Your task to perform on an android device: open sync settings in chrome Image 0: 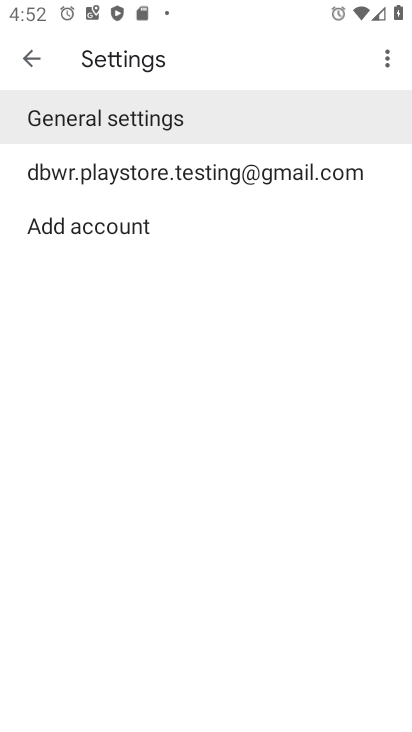
Step 0: press home button
Your task to perform on an android device: open sync settings in chrome Image 1: 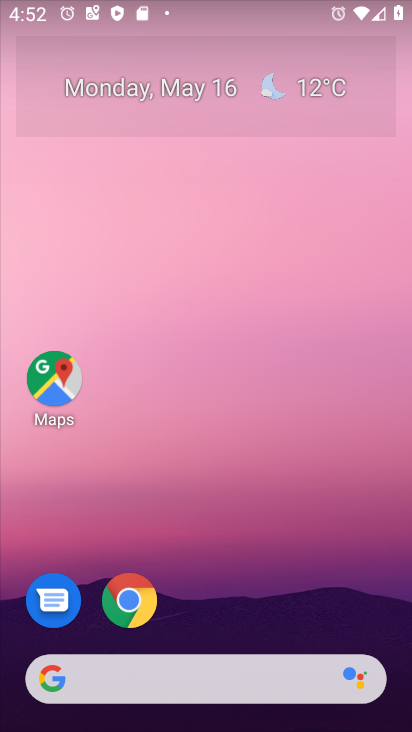
Step 1: click (129, 608)
Your task to perform on an android device: open sync settings in chrome Image 2: 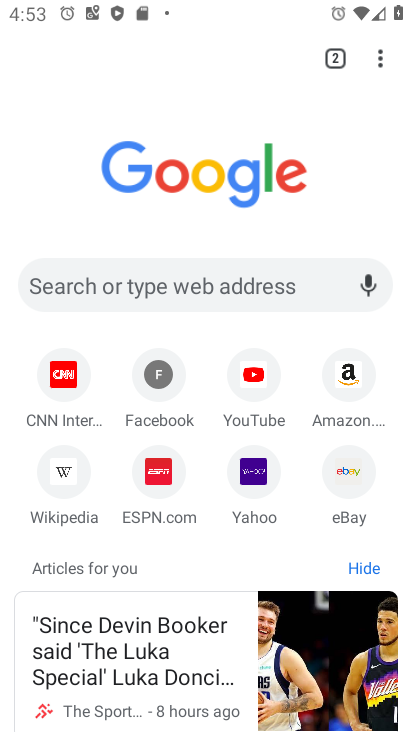
Step 2: click (384, 60)
Your task to perform on an android device: open sync settings in chrome Image 3: 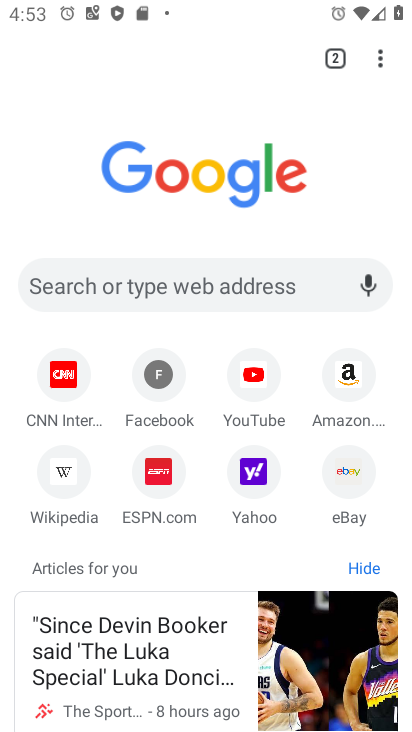
Step 3: click (382, 55)
Your task to perform on an android device: open sync settings in chrome Image 4: 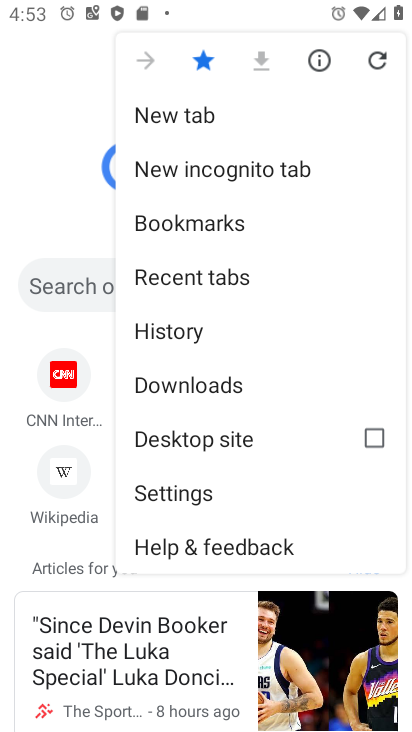
Step 4: click (188, 493)
Your task to perform on an android device: open sync settings in chrome Image 5: 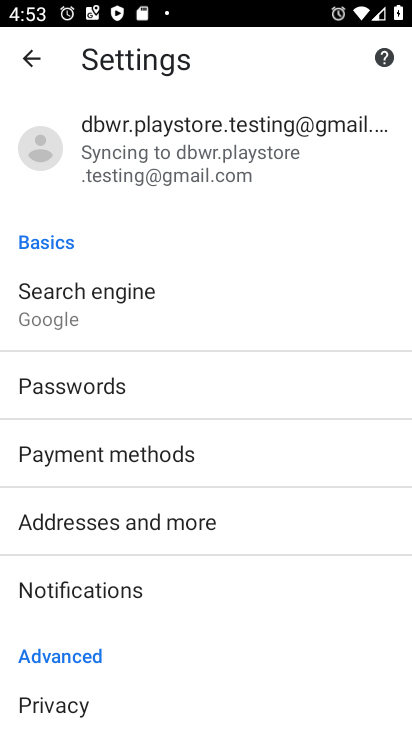
Step 5: click (128, 141)
Your task to perform on an android device: open sync settings in chrome Image 6: 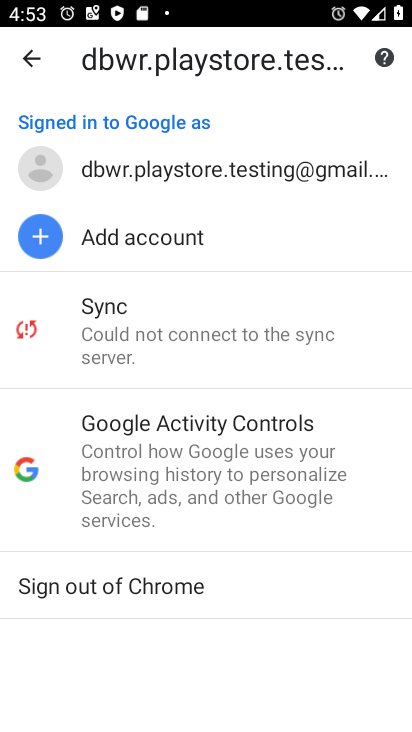
Step 6: click (129, 314)
Your task to perform on an android device: open sync settings in chrome Image 7: 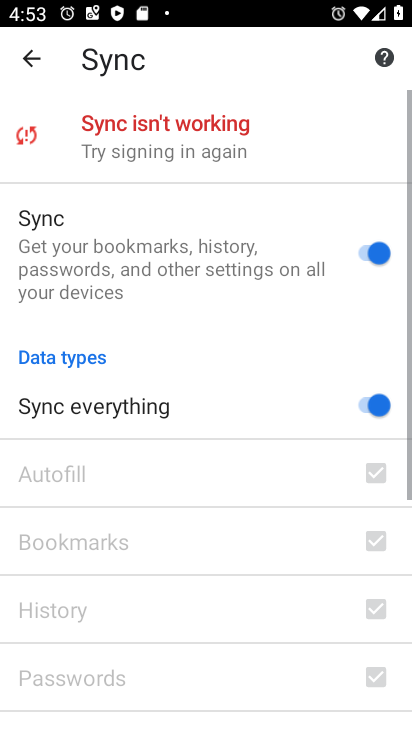
Step 7: task complete